Your task to perform on an android device: Search for sushi restaurants on Maps Image 0: 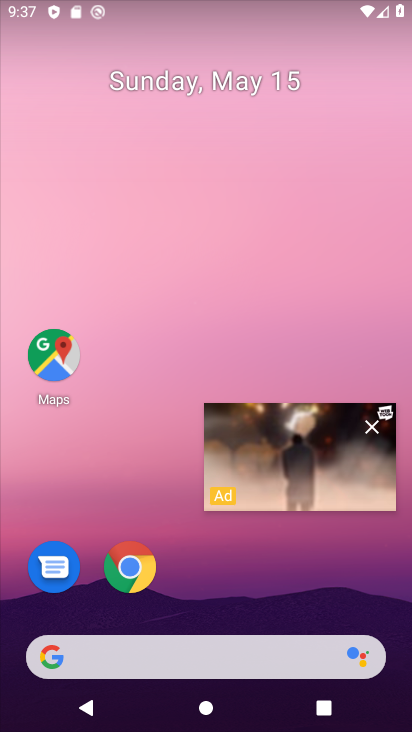
Step 0: click (380, 424)
Your task to perform on an android device: Search for sushi restaurants on Maps Image 1: 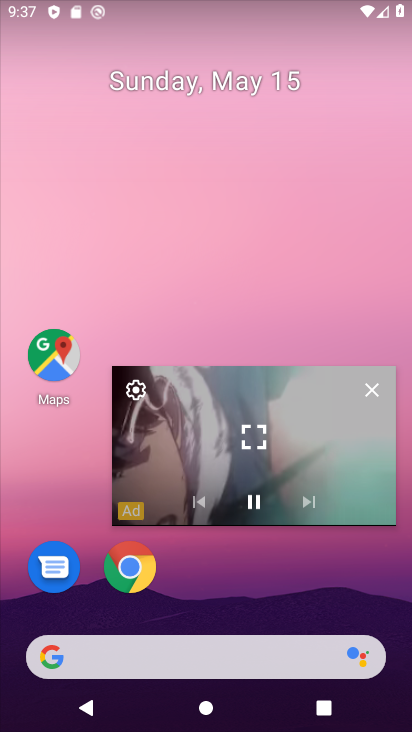
Step 1: click (370, 389)
Your task to perform on an android device: Search for sushi restaurants on Maps Image 2: 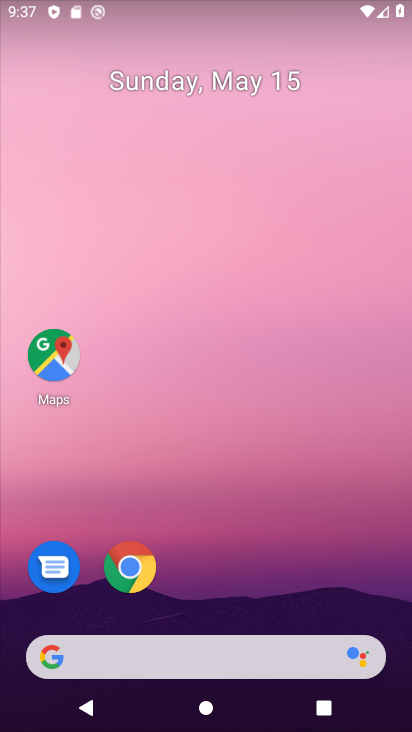
Step 2: click (60, 353)
Your task to perform on an android device: Search for sushi restaurants on Maps Image 3: 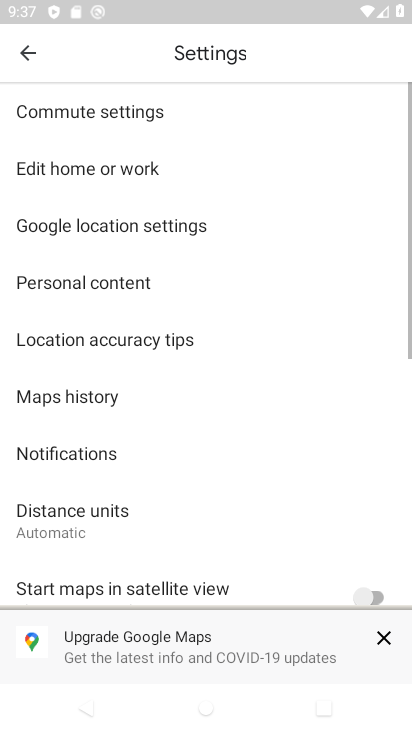
Step 3: press back button
Your task to perform on an android device: Search for sushi restaurants on Maps Image 4: 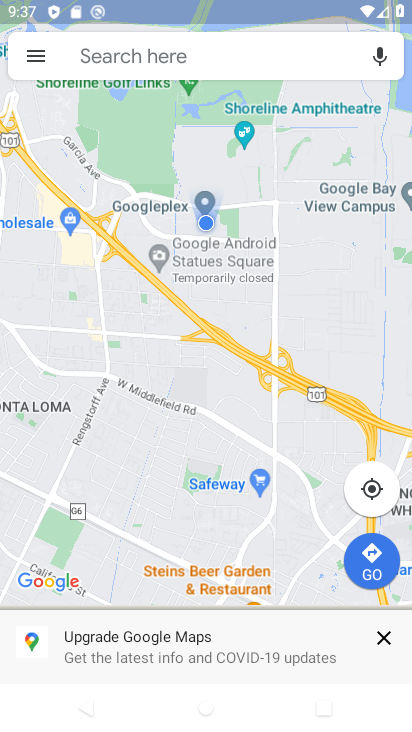
Step 4: click (173, 63)
Your task to perform on an android device: Search for sushi restaurants on Maps Image 5: 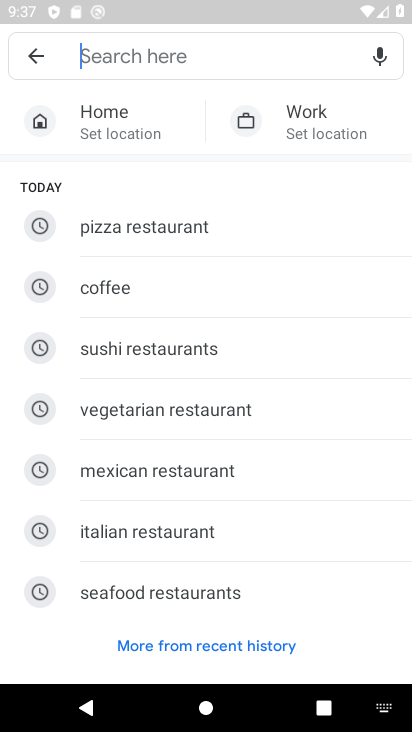
Step 5: click (212, 351)
Your task to perform on an android device: Search for sushi restaurants on Maps Image 6: 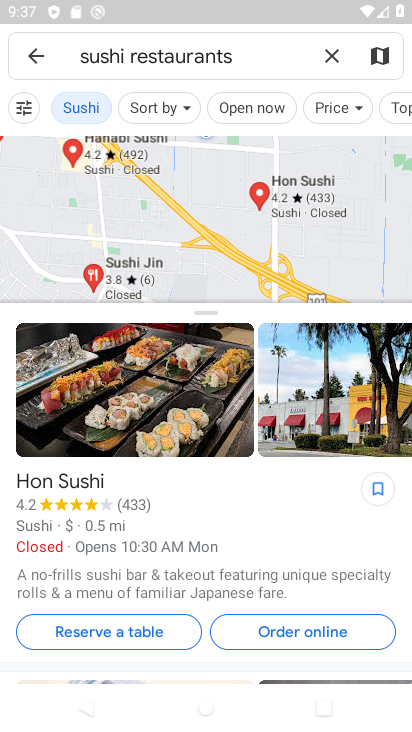
Step 6: task complete